Your task to perform on an android device: Search for "bose soundlink" on target.com, select the first entry, and add it to the cart. Image 0: 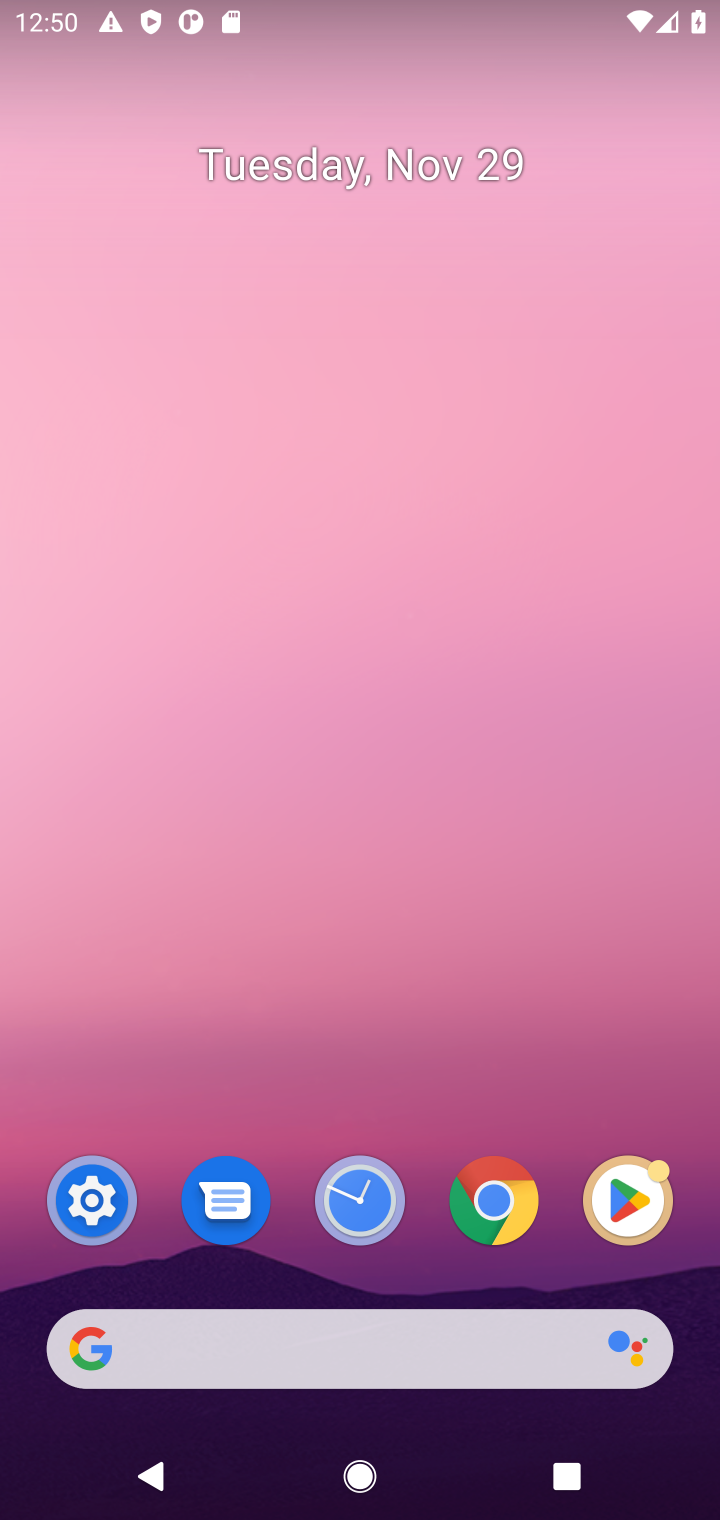
Step 0: click (349, 1304)
Your task to perform on an android device: Search for "bose soundlink" on target.com, select the first entry, and add it to the cart. Image 1: 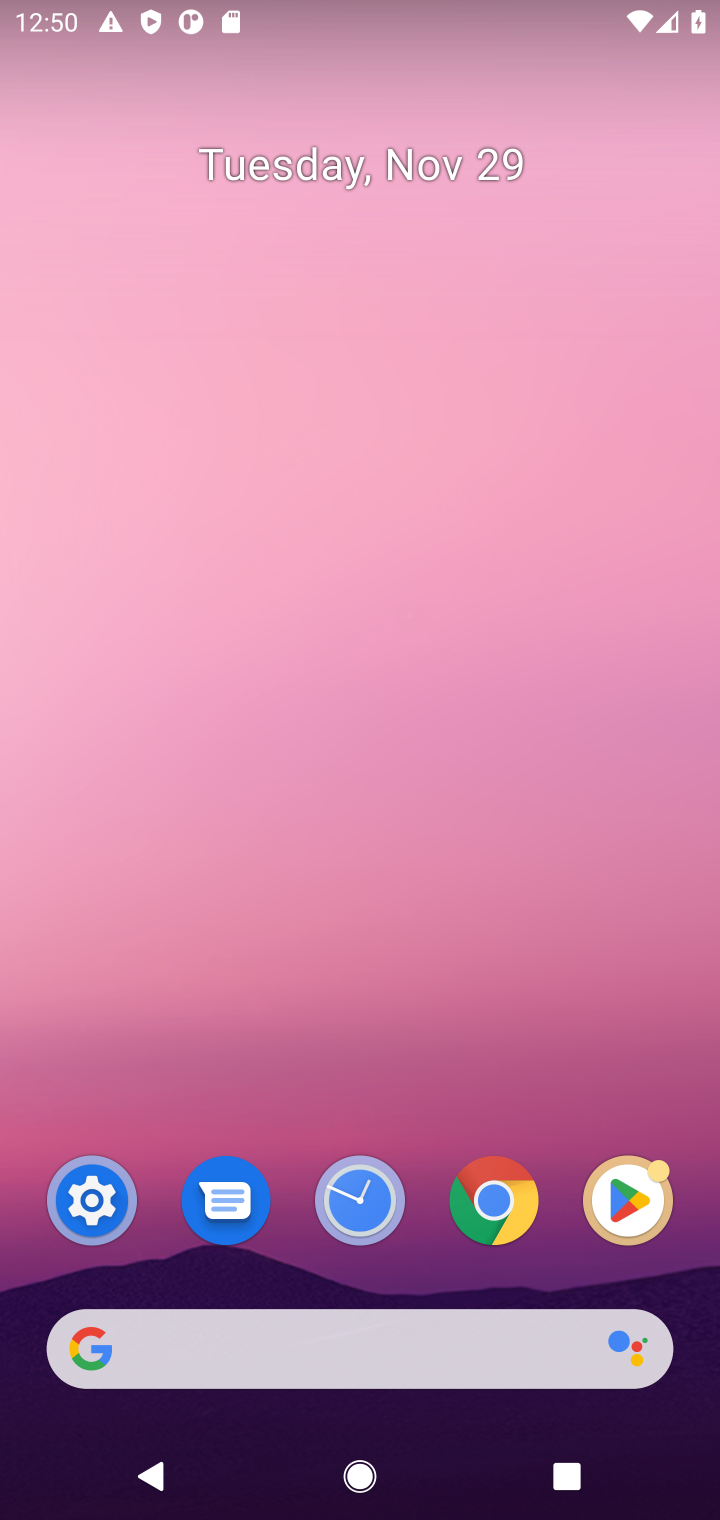
Step 1: click (349, 1332)
Your task to perform on an android device: Search for "bose soundlink" on target.com, select the first entry, and add it to the cart. Image 2: 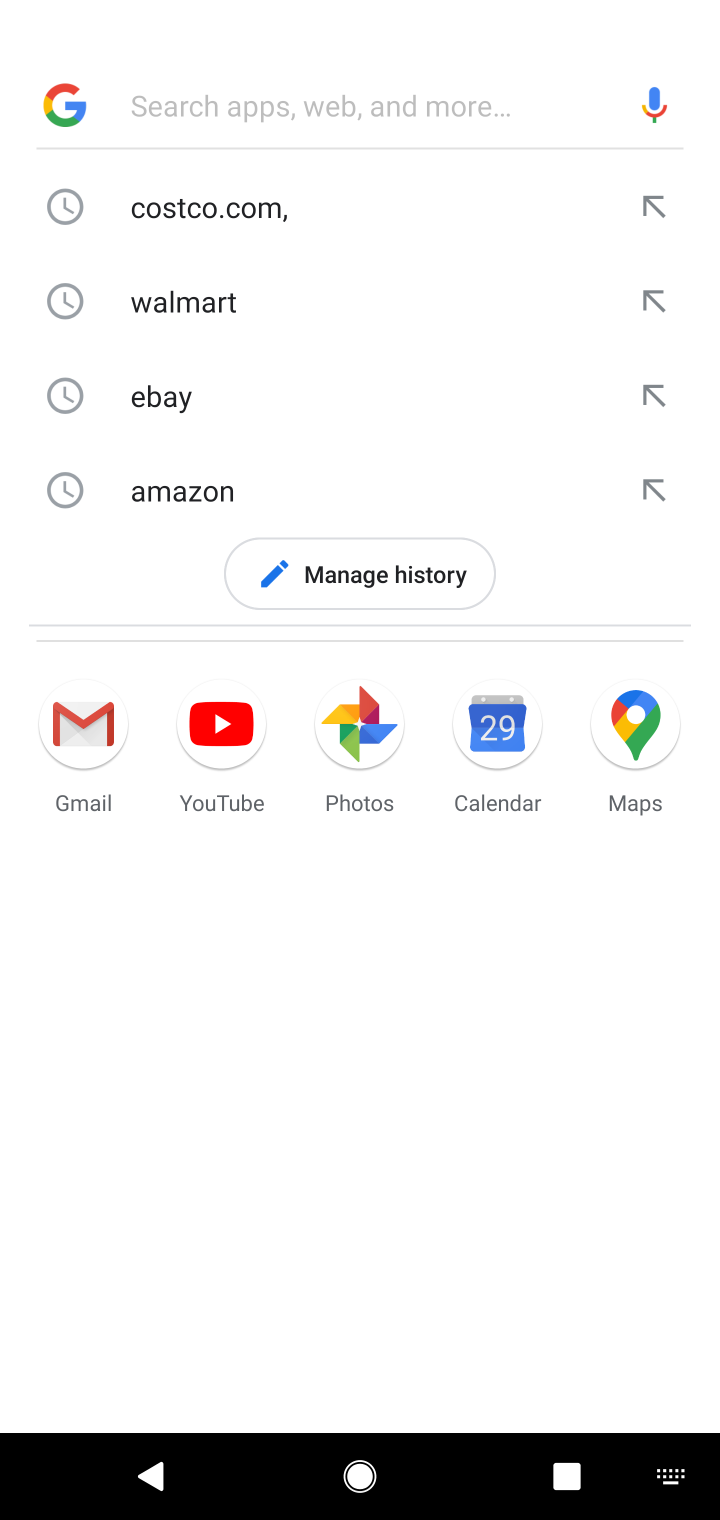
Step 2: type "bose sound"
Your task to perform on an android device: Search for "bose soundlink" on target.com, select the first entry, and add it to the cart. Image 3: 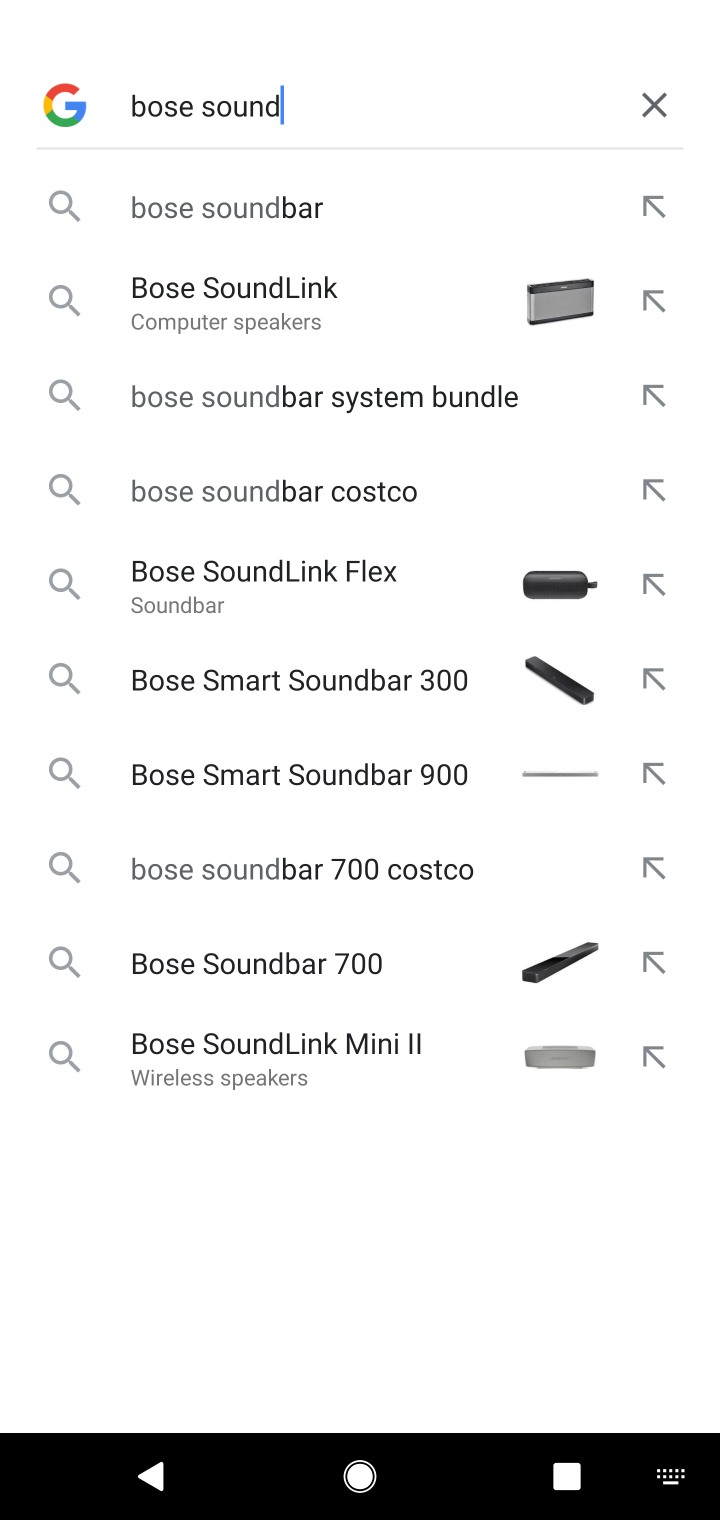
Step 3: task complete